Your task to perform on an android device: all mails in gmail Image 0: 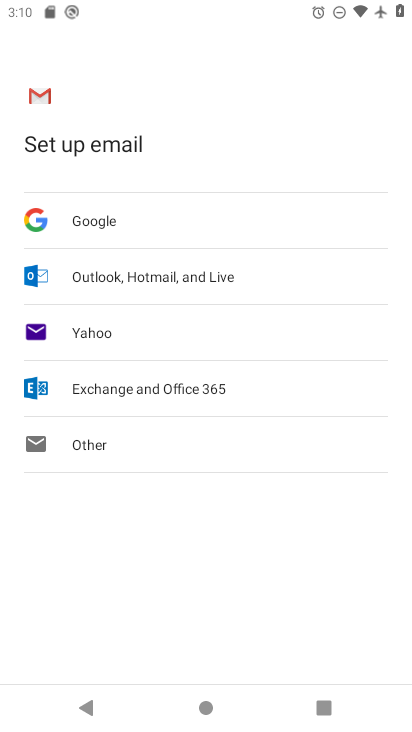
Step 0: press home button
Your task to perform on an android device: all mails in gmail Image 1: 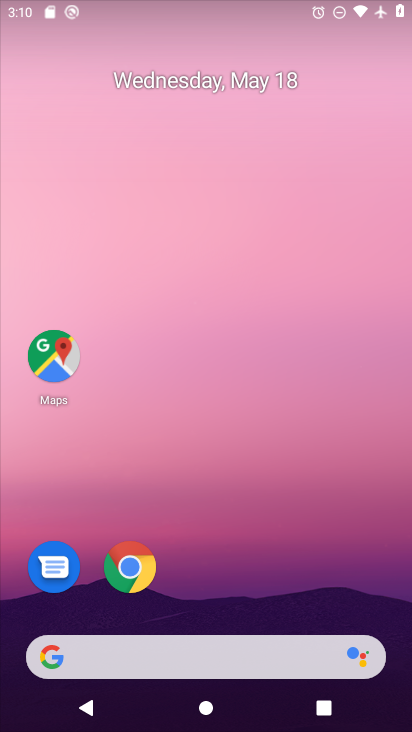
Step 1: drag from (198, 563) to (208, 107)
Your task to perform on an android device: all mails in gmail Image 2: 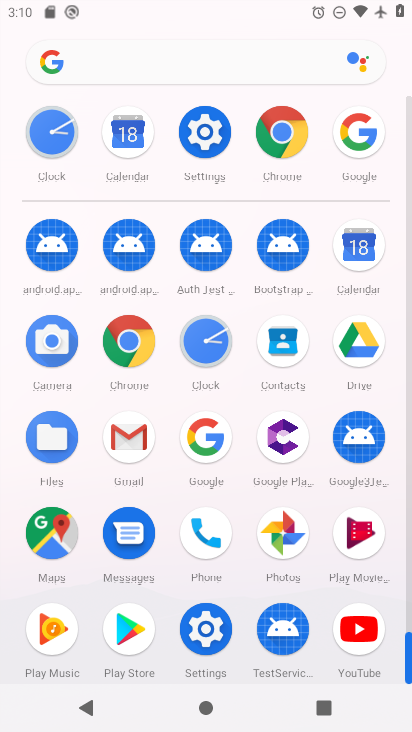
Step 2: click (118, 435)
Your task to perform on an android device: all mails in gmail Image 3: 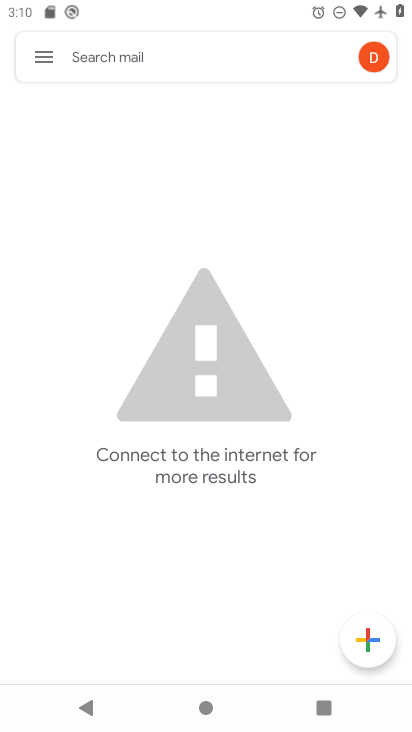
Step 3: click (34, 47)
Your task to perform on an android device: all mails in gmail Image 4: 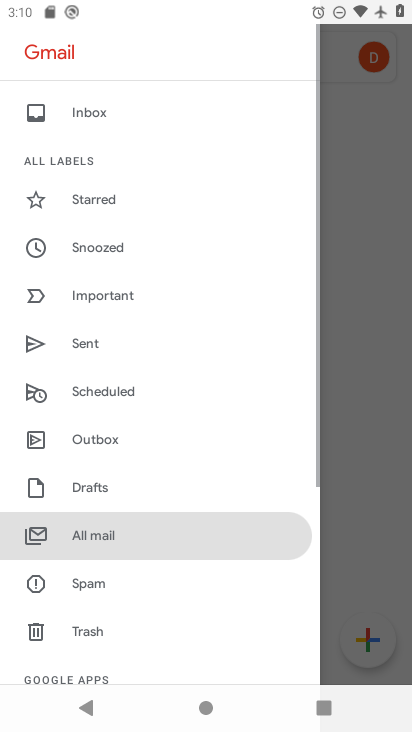
Step 4: click (116, 529)
Your task to perform on an android device: all mails in gmail Image 5: 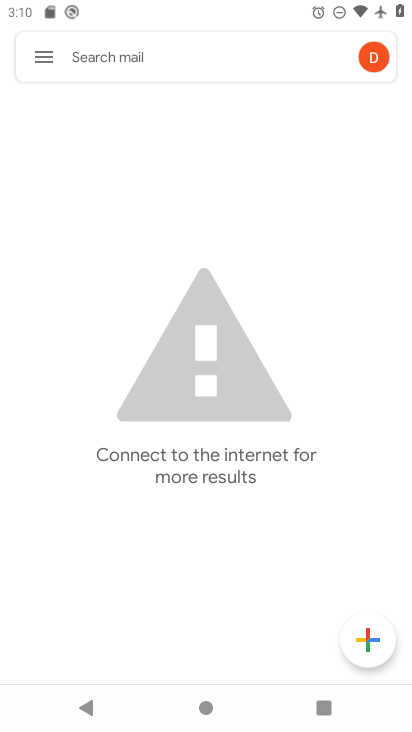
Step 5: task complete